Your task to perform on an android device: Search for sushi restaurants on Maps Image 0: 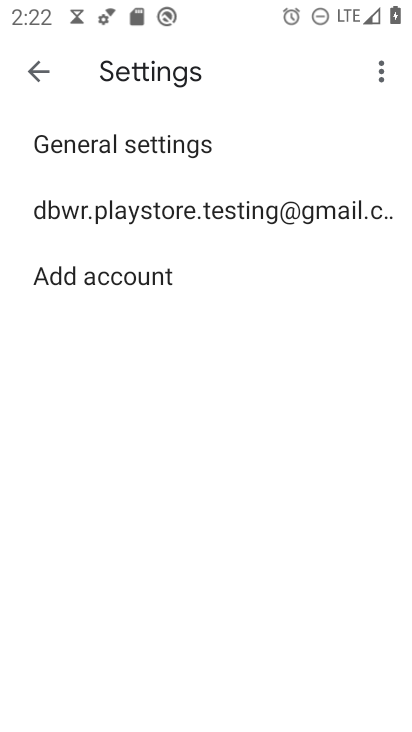
Step 0: press home button
Your task to perform on an android device: Search for sushi restaurants on Maps Image 1: 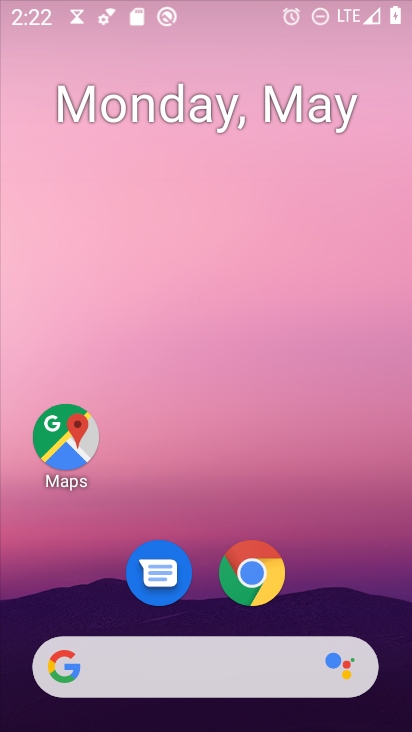
Step 1: drag from (309, 641) to (316, 3)
Your task to perform on an android device: Search for sushi restaurants on Maps Image 2: 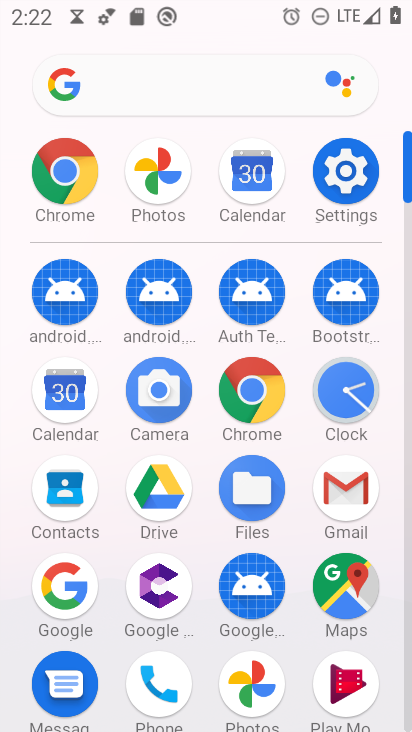
Step 2: click (348, 578)
Your task to perform on an android device: Search for sushi restaurants on Maps Image 3: 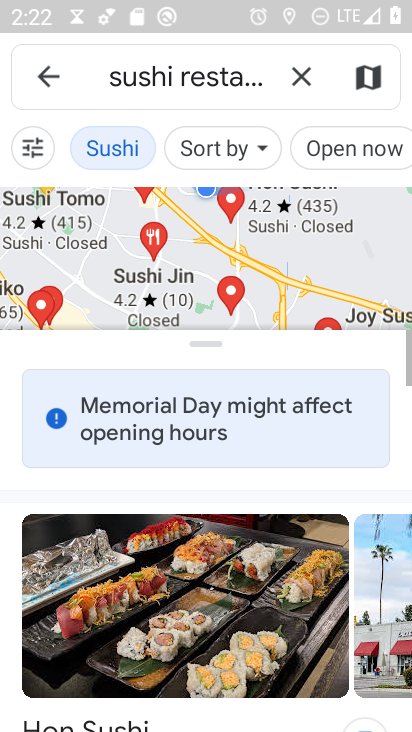
Step 3: task complete